Your task to perform on an android device: Search for Mexican restaurants on Maps Image 0: 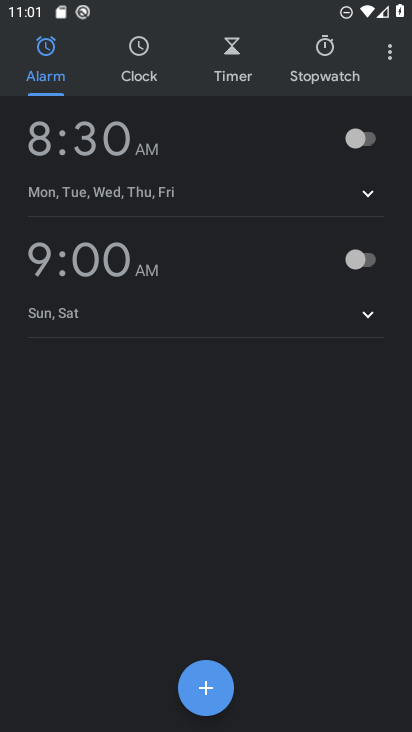
Step 0: drag from (221, 637) to (279, 225)
Your task to perform on an android device: Search for Mexican restaurants on Maps Image 1: 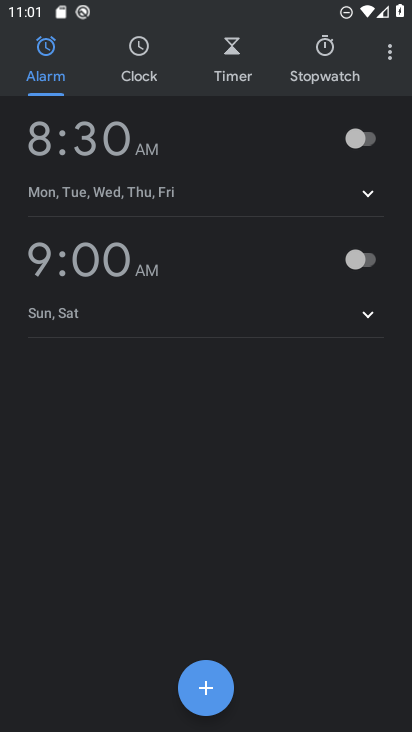
Step 1: press home button
Your task to perform on an android device: Search for Mexican restaurants on Maps Image 2: 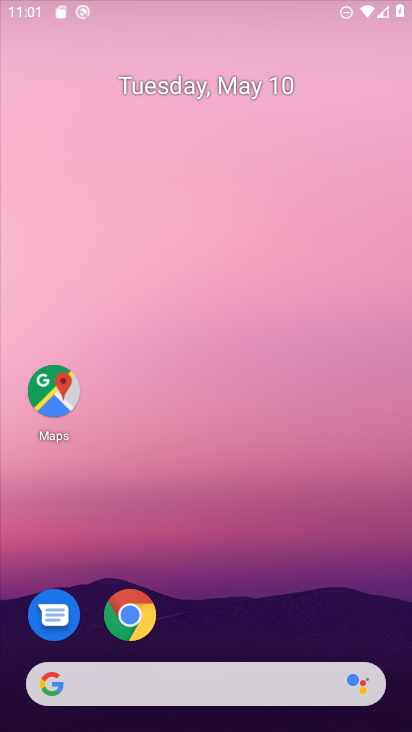
Step 2: drag from (200, 650) to (297, 163)
Your task to perform on an android device: Search for Mexican restaurants on Maps Image 3: 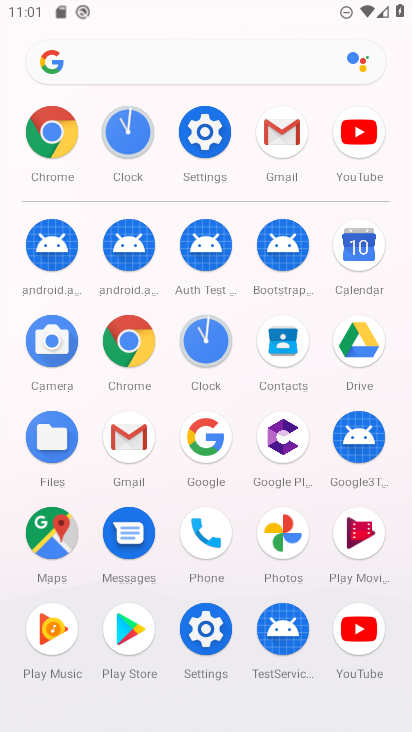
Step 3: click (55, 532)
Your task to perform on an android device: Search for Mexican restaurants on Maps Image 4: 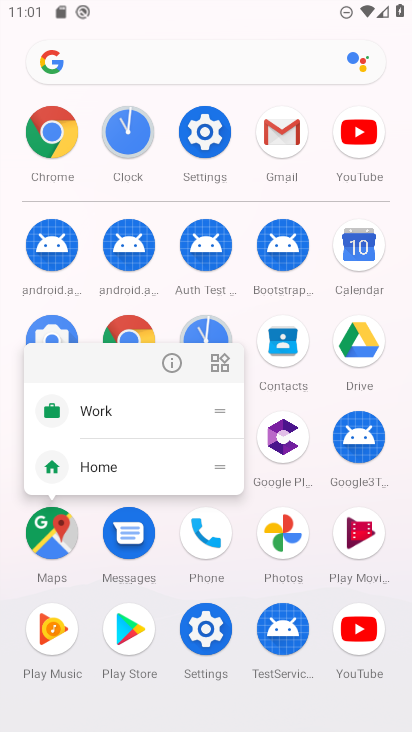
Step 4: click (172, 355)
Your task to perform on an android device: Search for Mexican restaurants on Maps Image 5: 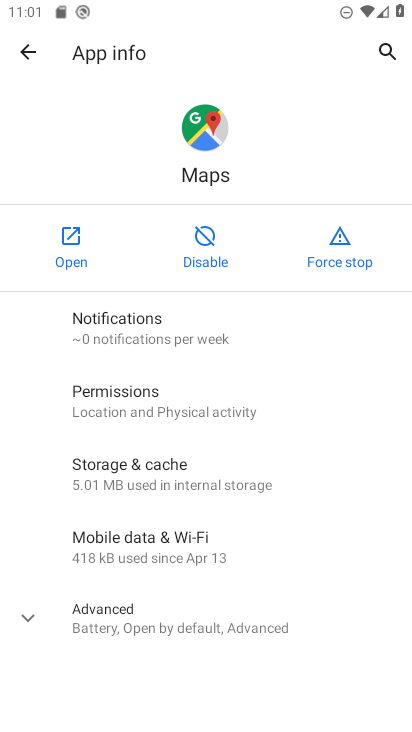
Step 5: click (66, 229)
Your task to perform on an android device: Search for Mexican restaurants on Maps Image 6: 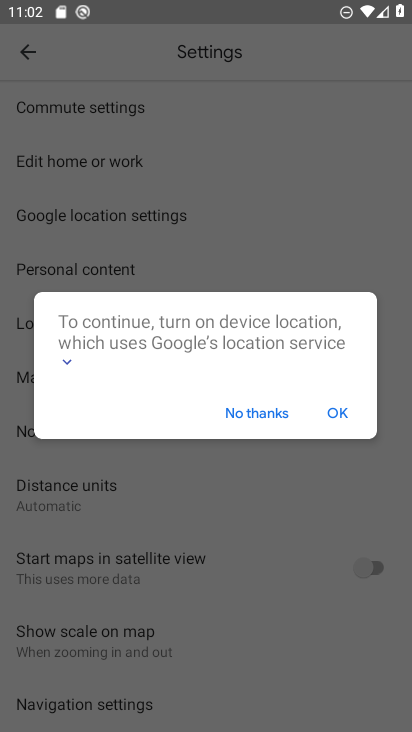
Step 6: click (337, 419)
Your task to perform on an android device: Search for Mexican restaurants on Maps Image 7: 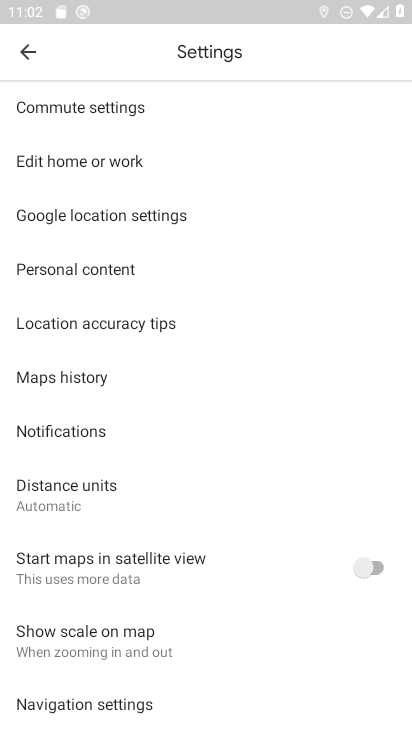
Step 7: click (28, 68)
Your task to perform on an android device: Search for Mexican restaurants on Maps Image 8: 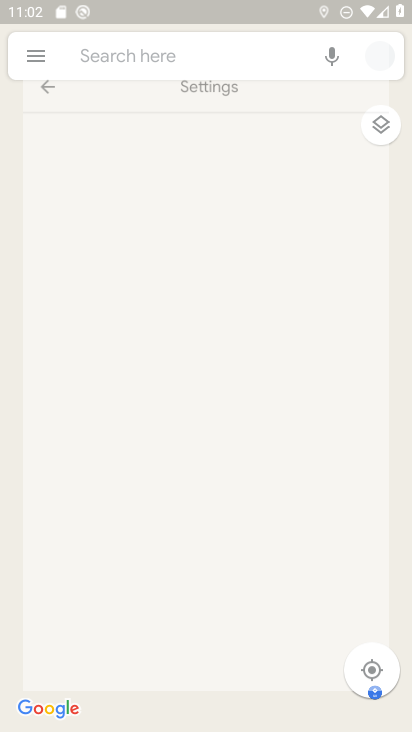
Step 8: click (33, 47)
Your task to perform on an android device: Search for Mexican restaurants on Maps Image 9: 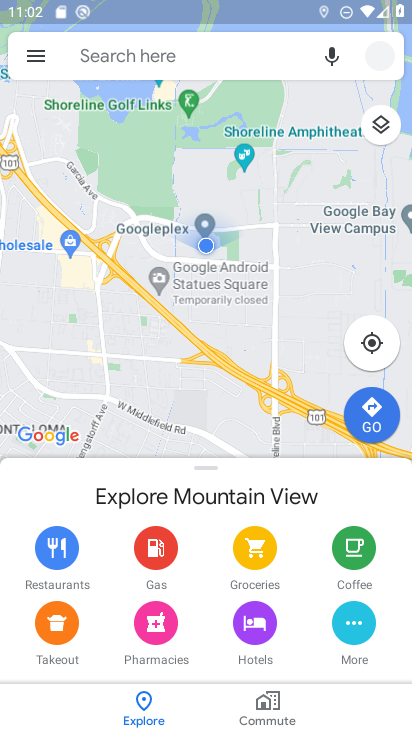
Step 9: click (191, 55)
Your task to perform on an android device: Search for Mexican restaurants on Maps Image 10: 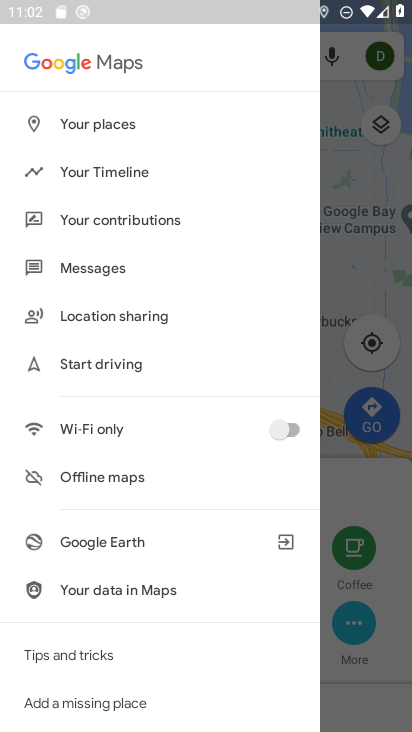
Step 10: click (331, 96)
Your task to perform on an android device: Search for Mexican restaurants on Maps Image 11: 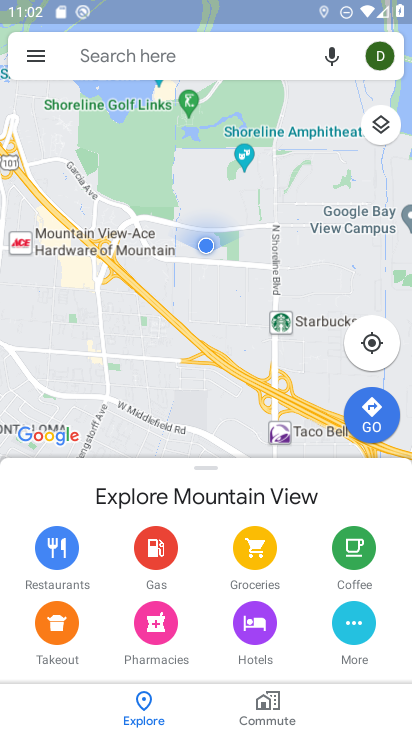
Step 11: click (170, 62)
Your task to perform on an android device: Search for Mexican restaurants on Maps Image 12: 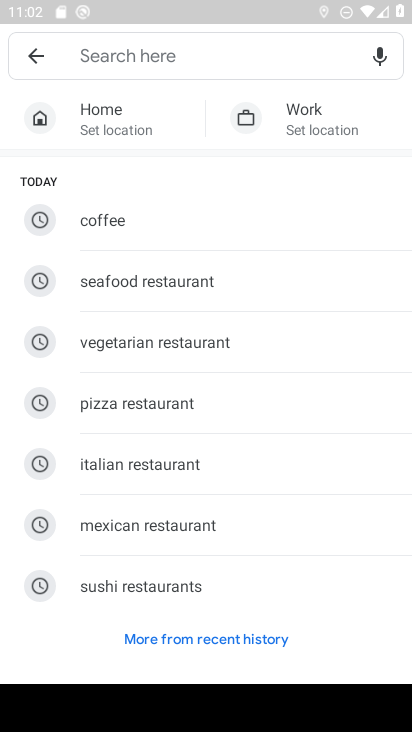
Step 12: click (163, 537)
Your task to perform on an android device: Search for Mexican restaurants on Maps Image 13: 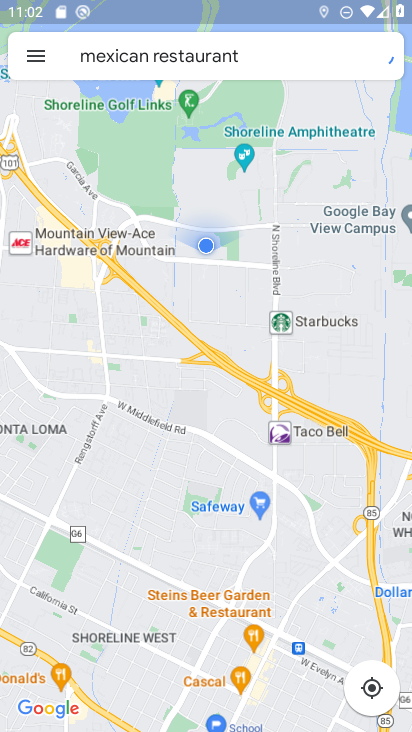
Step 13: task complete